Your task to perform on an android device: find photos in the google photos app Image 0: 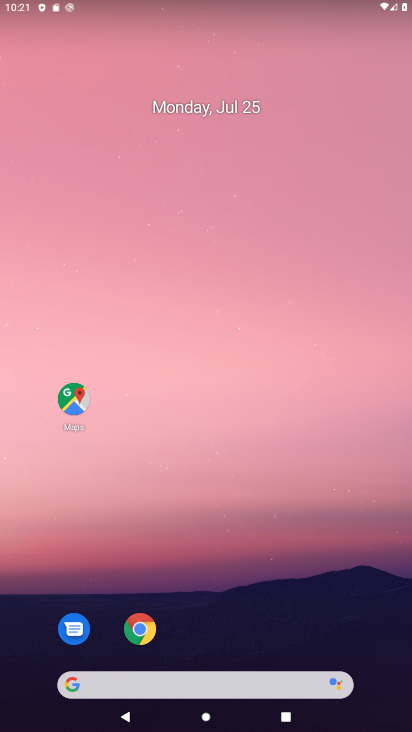
Step 0: drag from (242, 653) to (265, 6)
Your task to perform on an android device: find photos in the google photos app Image 1: 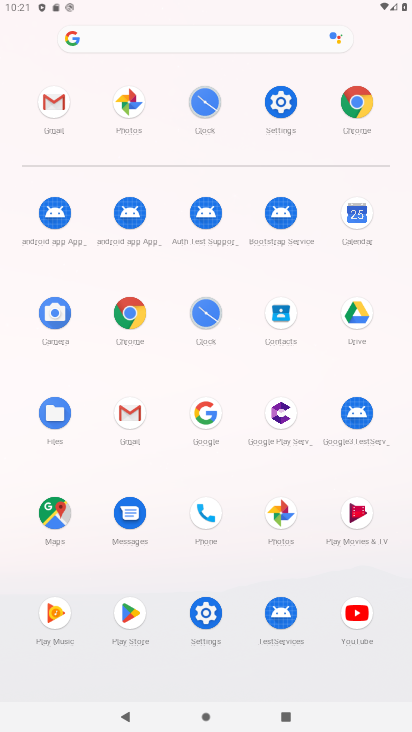
Step 1: click (129, 101)
Your task to perform on an android device: find photos in the google photos app Image 2: 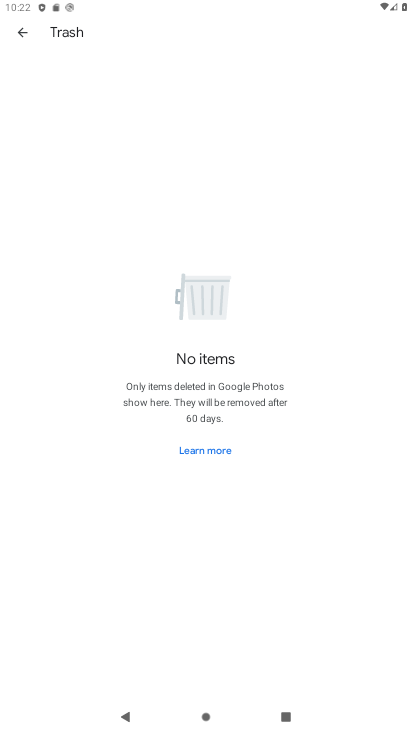
Step 2: click (17, 34)
Your task to perform on an android device: find photos in the google photos app Image 3: 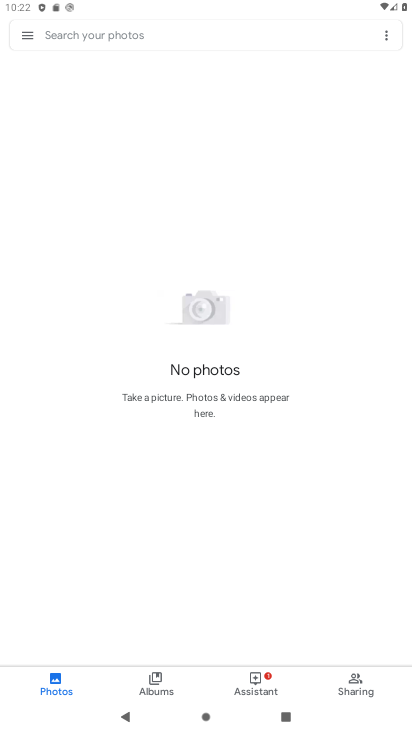
Step 3: task complete